Your task to perform on an android device: Open network settings Image 0: 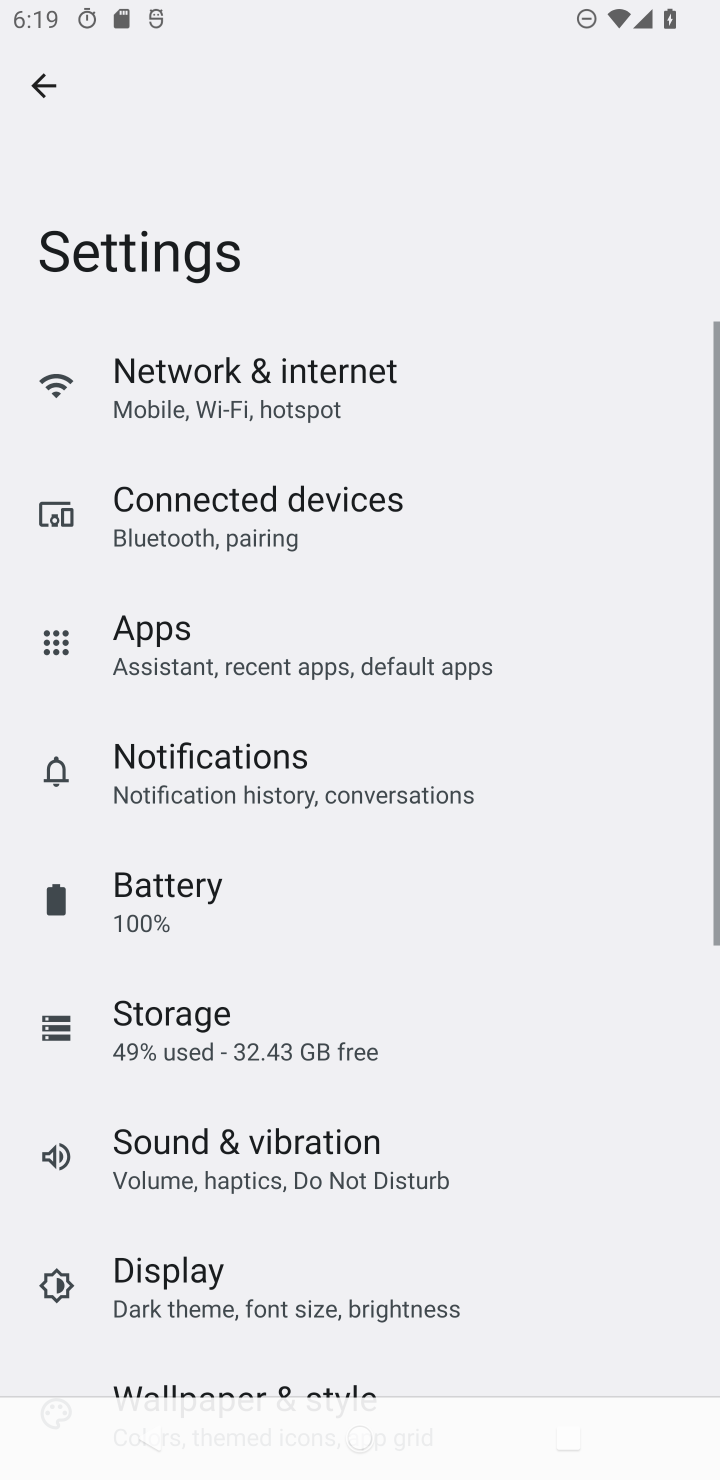
Step 0: click (538, 531)
Your task to perform on an android device: Open network settings Image 1: 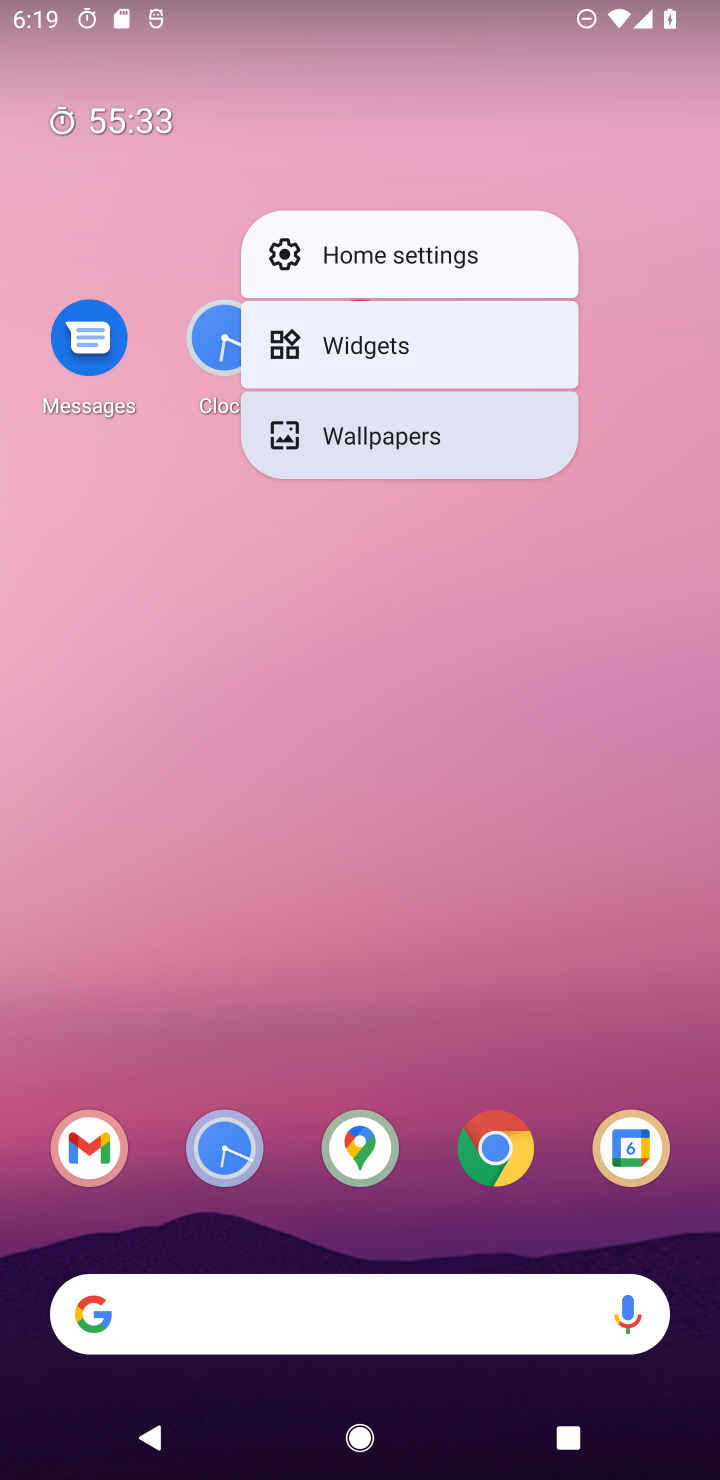
Step 1: drag from (400, 1204) to (438, 492)
Your task to perform on an android device: Open network settings Image 2: 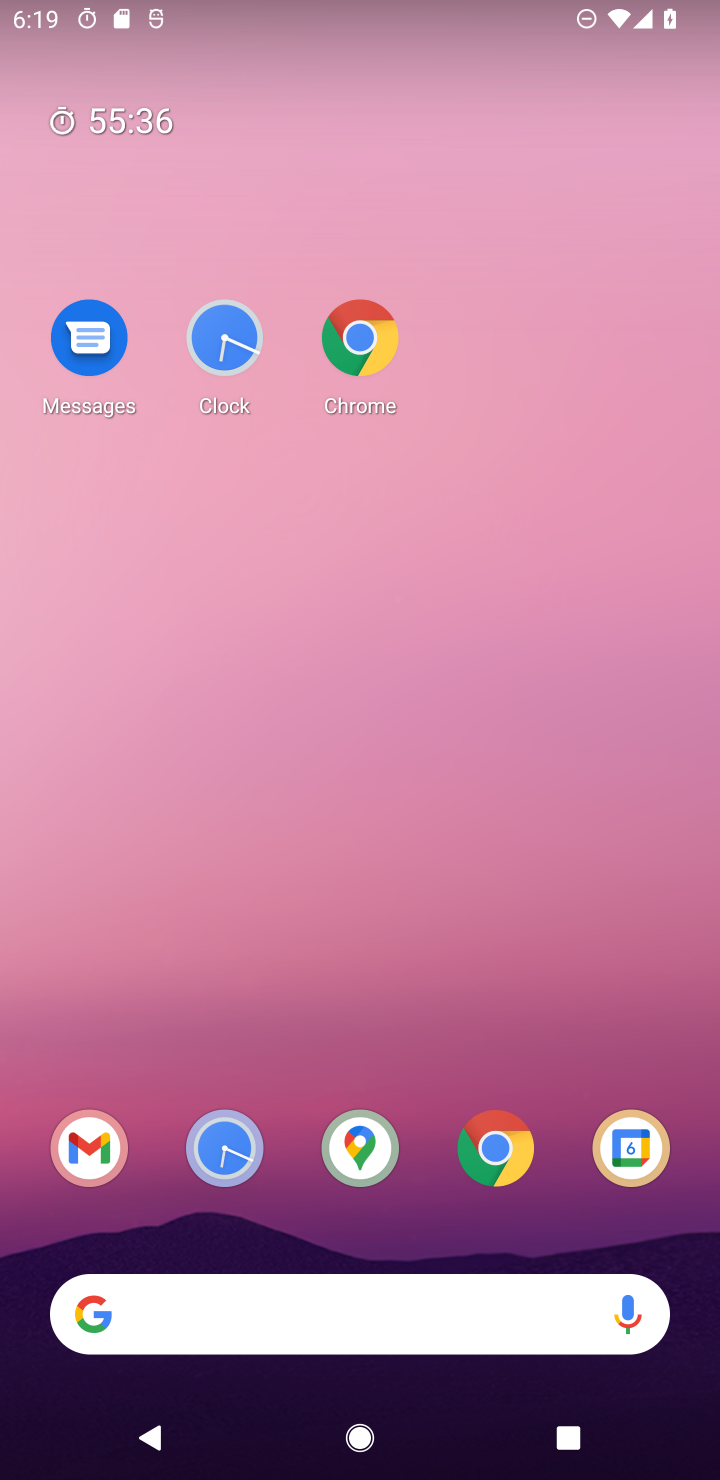
Step 2: drag from (423, 1129) to (451, 415)
Your task to perform on an android device: Open network settings Image 3: 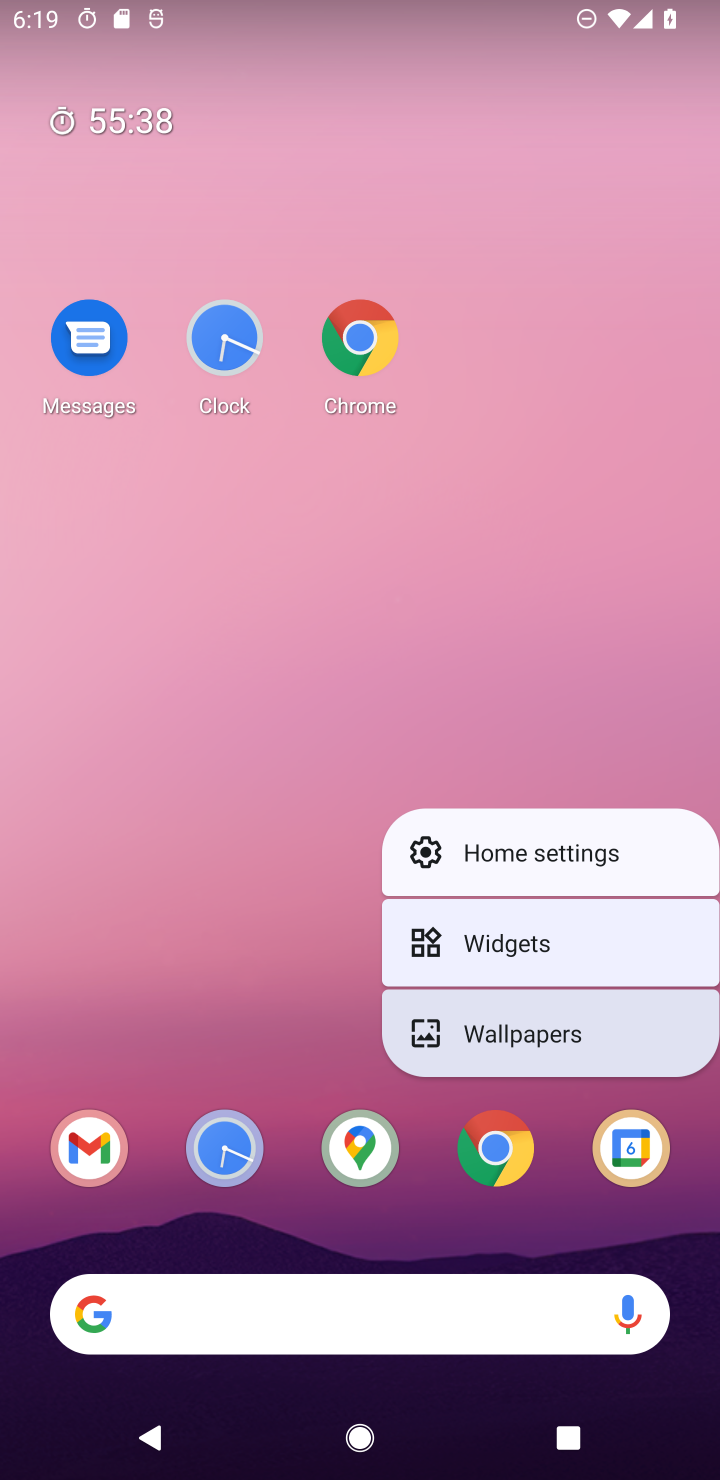
Step 3: drag from (416, 1173) to (424, 574)
Your task to perform on an android device: Open network settings Image 4: 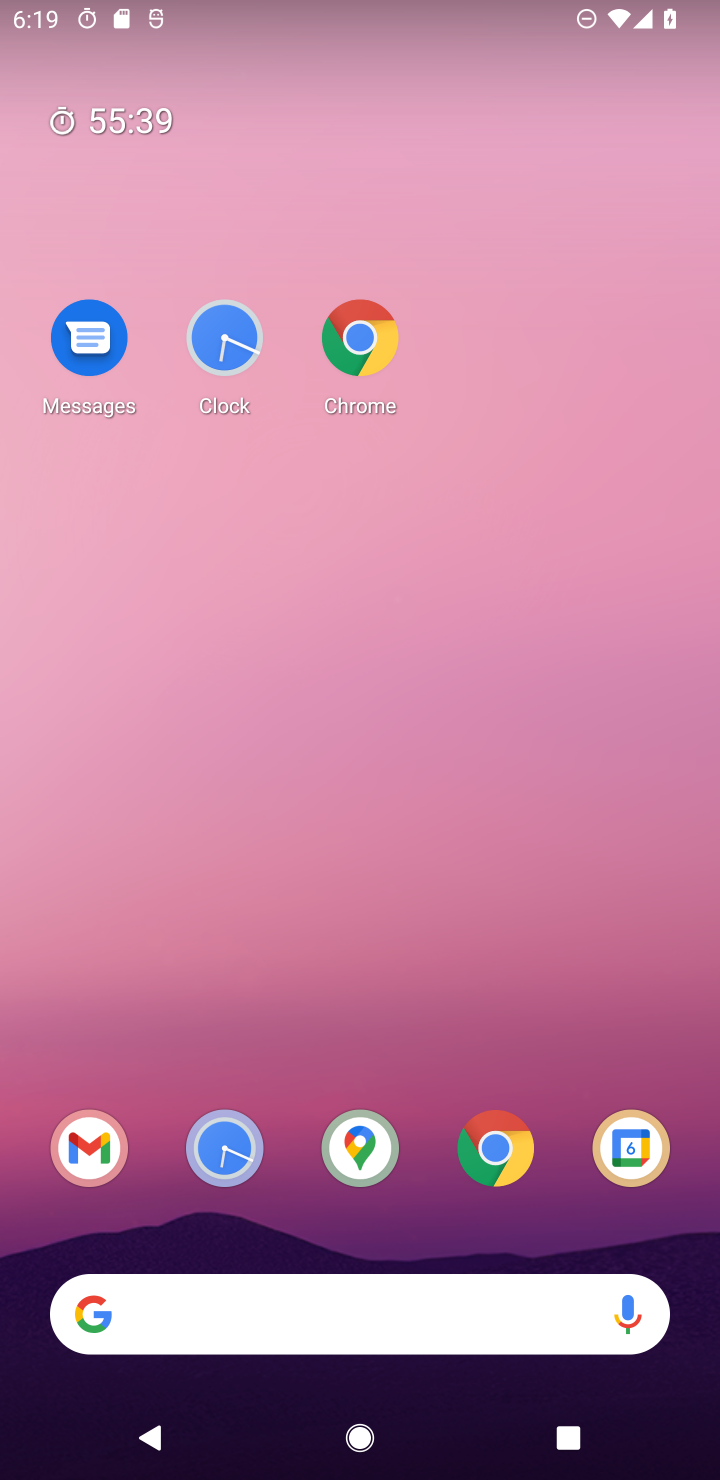
Step 4: drag from (288, 890) to (375, 237)
Your task to perform on an android device: Open network settings Image 5: 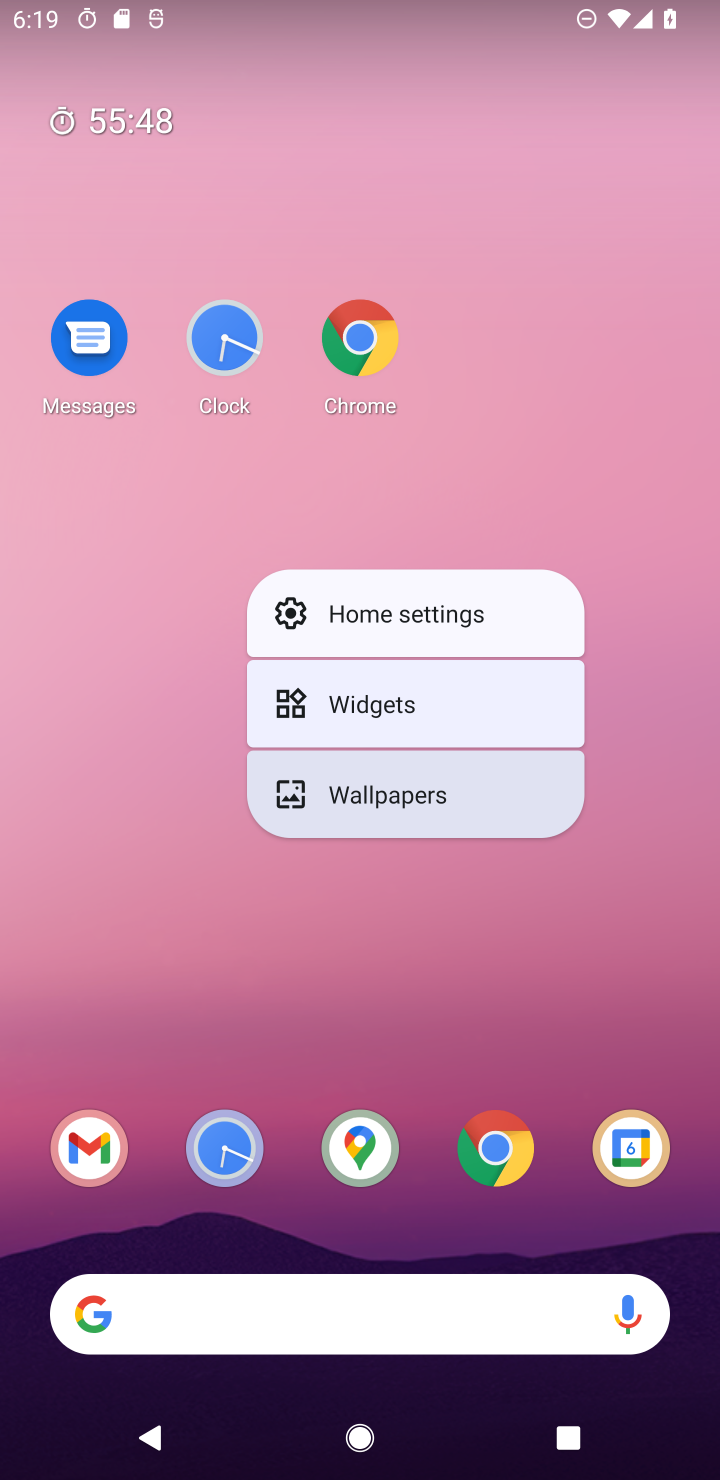
Step 5: drag from (384, 1144) to (374, 419)
Your task to perform on an android device: Open network settings Image 6: 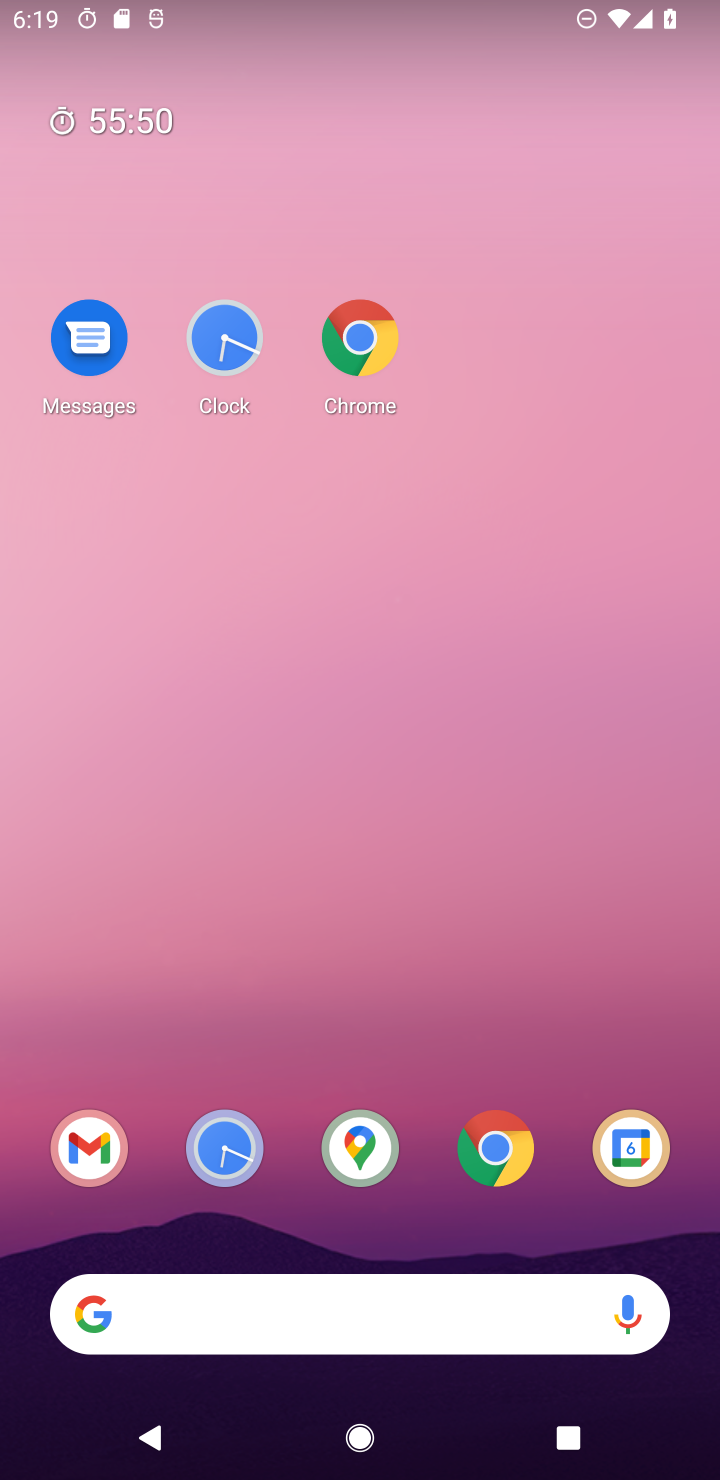
Step 6: drag from (362, 1122) to (451, 405)
Your task to perform on an android device: Open network settings Image 7: 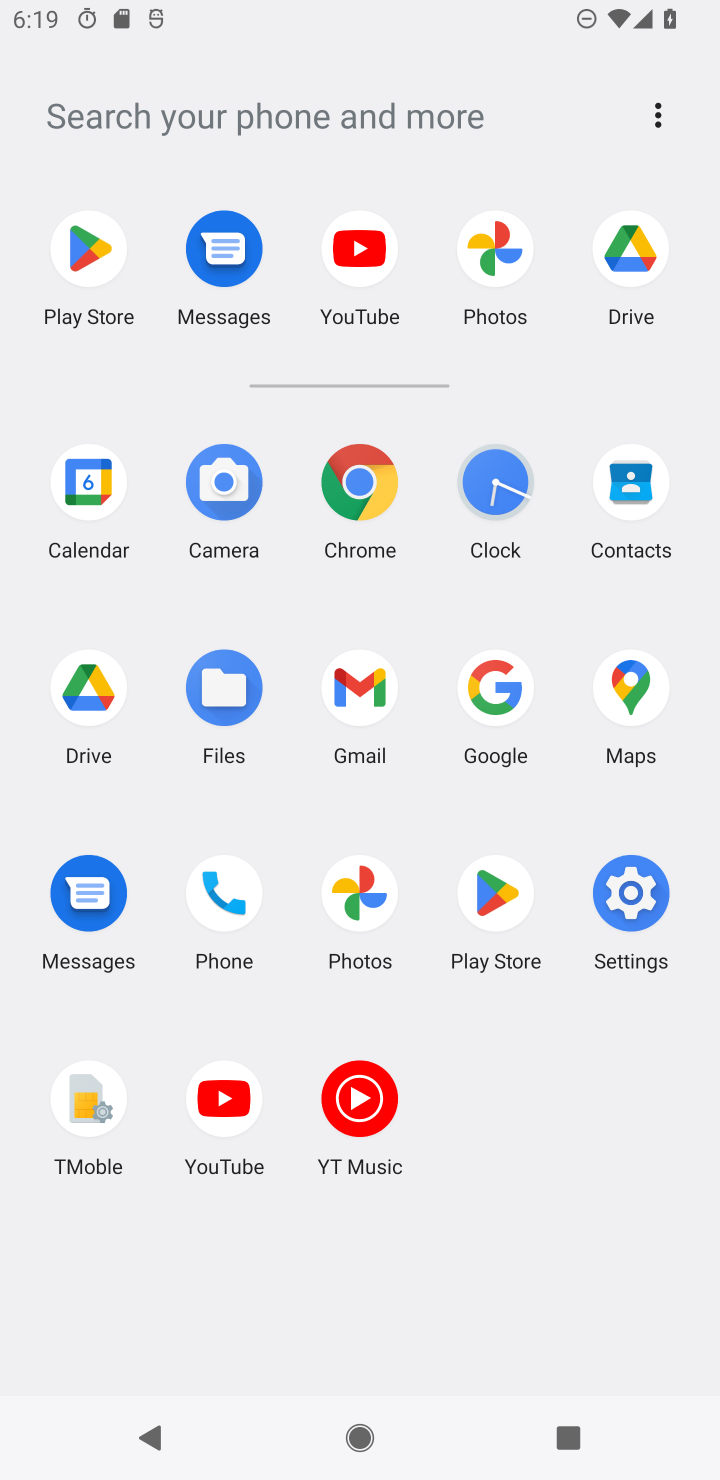
Step 7: click (639, 888)
Your task to perform on an android device: Open network settings Image 8: 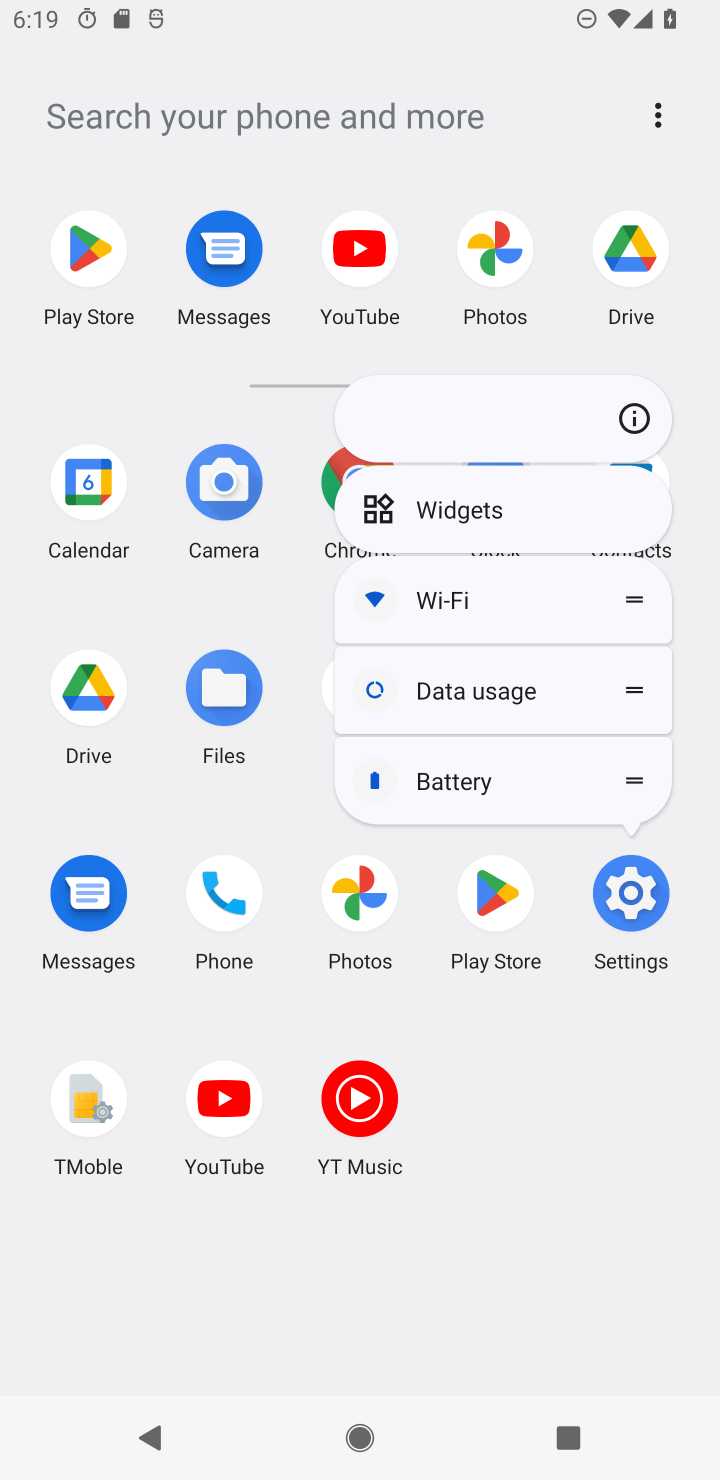
Step 8: click (623, 418)
Your task to perform on an android device: Open network settings Image 9: 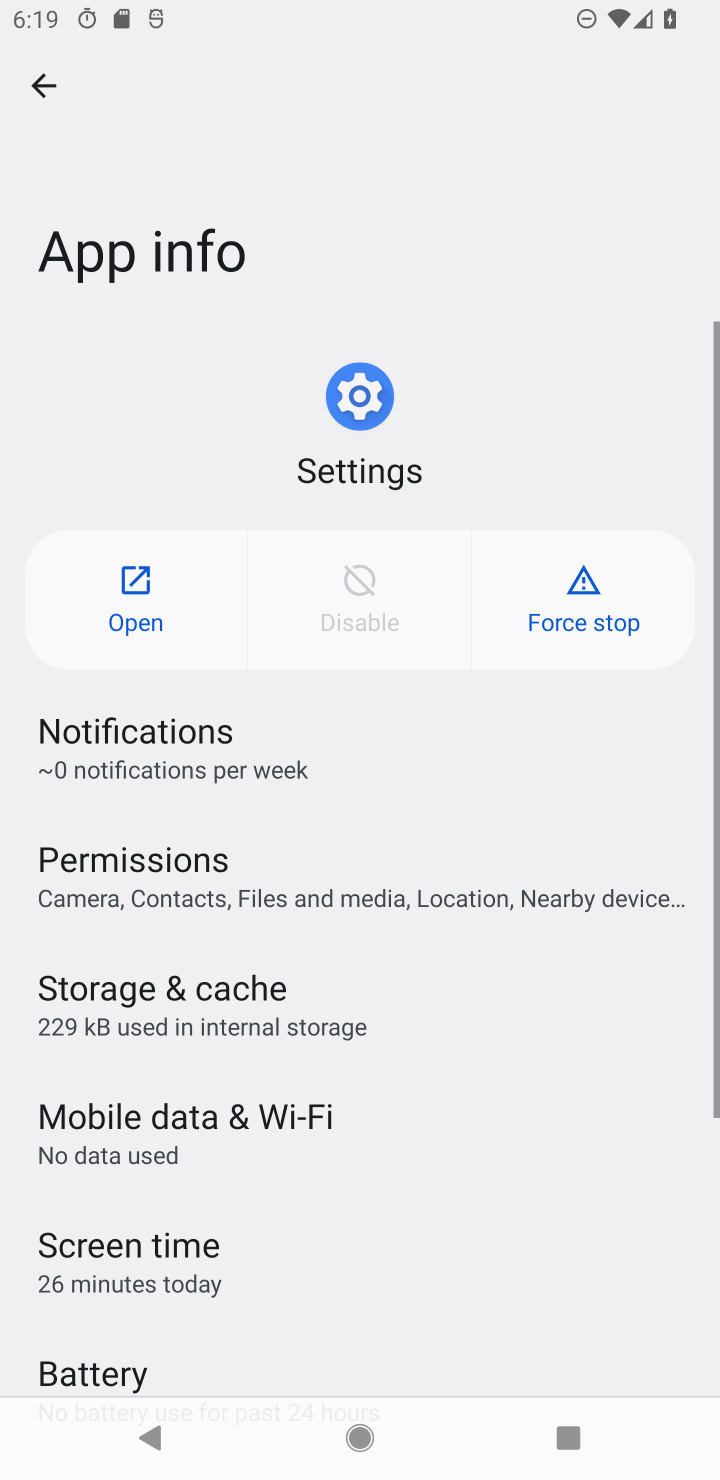
Step 9: click (122, 560)
Your task to perform on an android device: Open network settings Image 10: 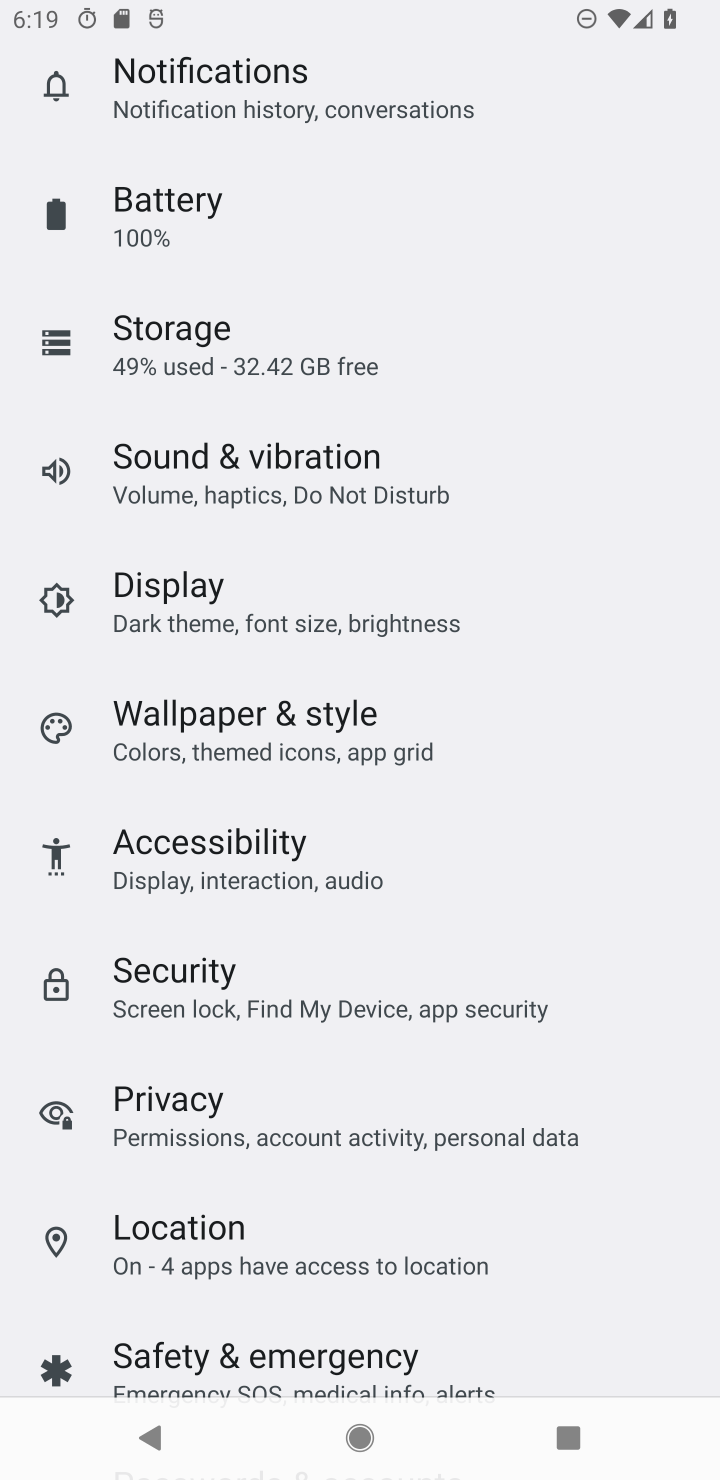
Step 10: drag from (300, 439) to (520, 1274)
Your task to perform on an android device: Open network settings Image 11: 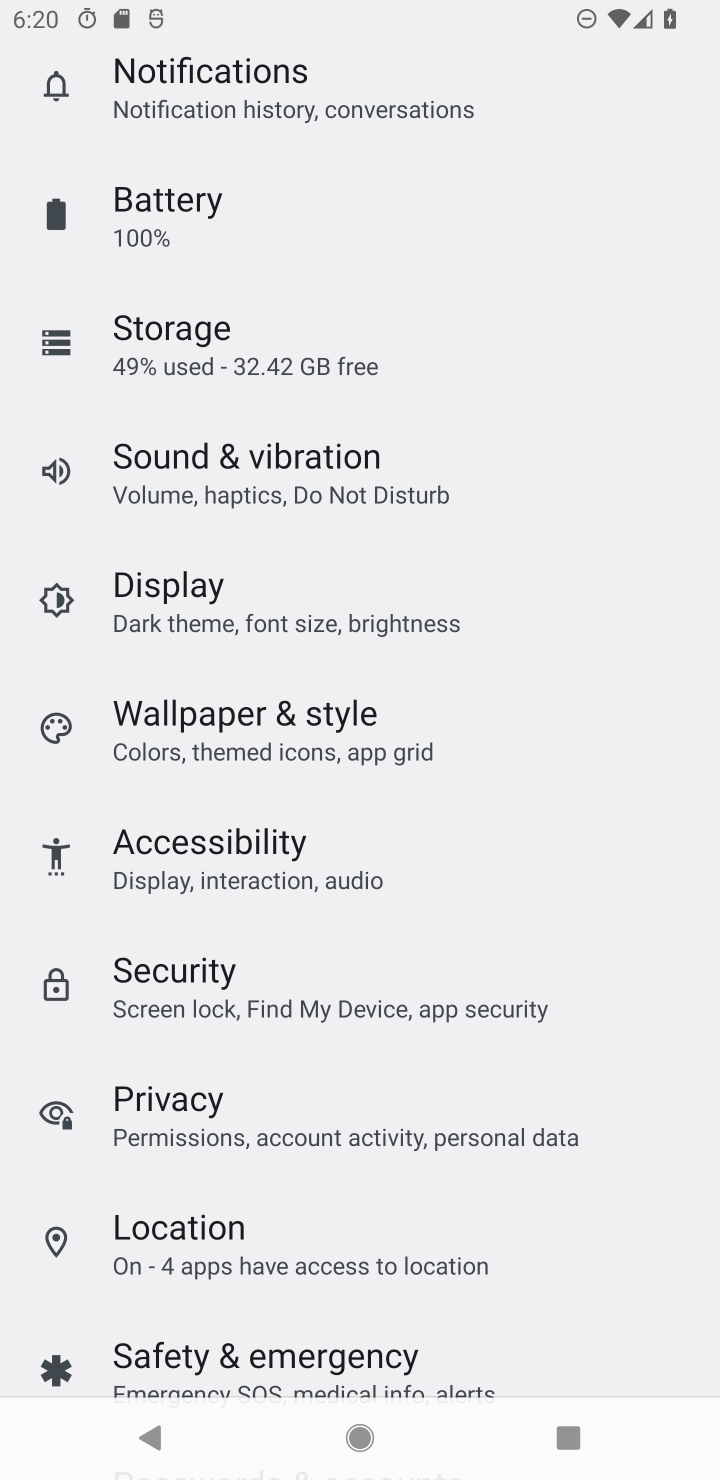
Step 11: drag from (245, 313) to (390, 1221)
Your task to perform on an android device: Open network settings Image 12: 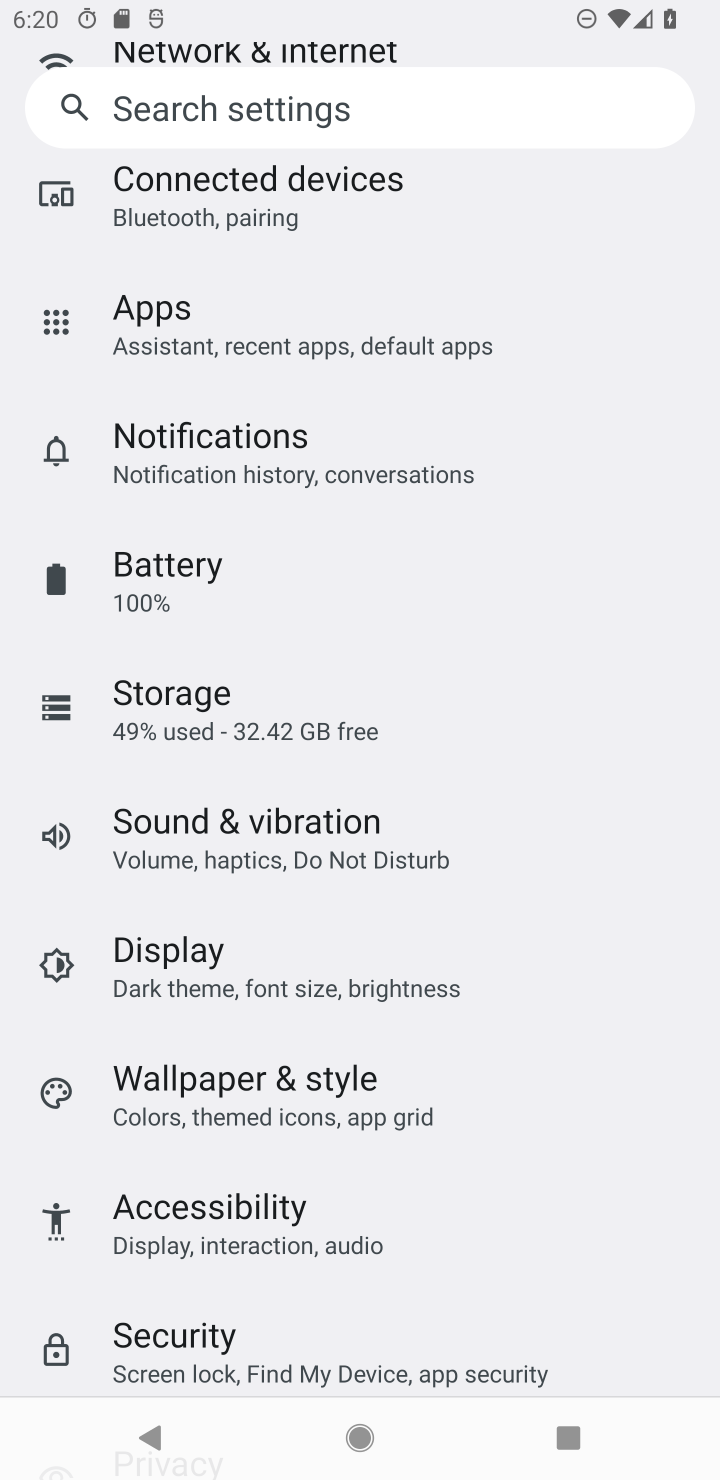
Step 12: drag from (364, 322) to (434, 1369)
Your task to perform on an android device: Open network settings Image 13: 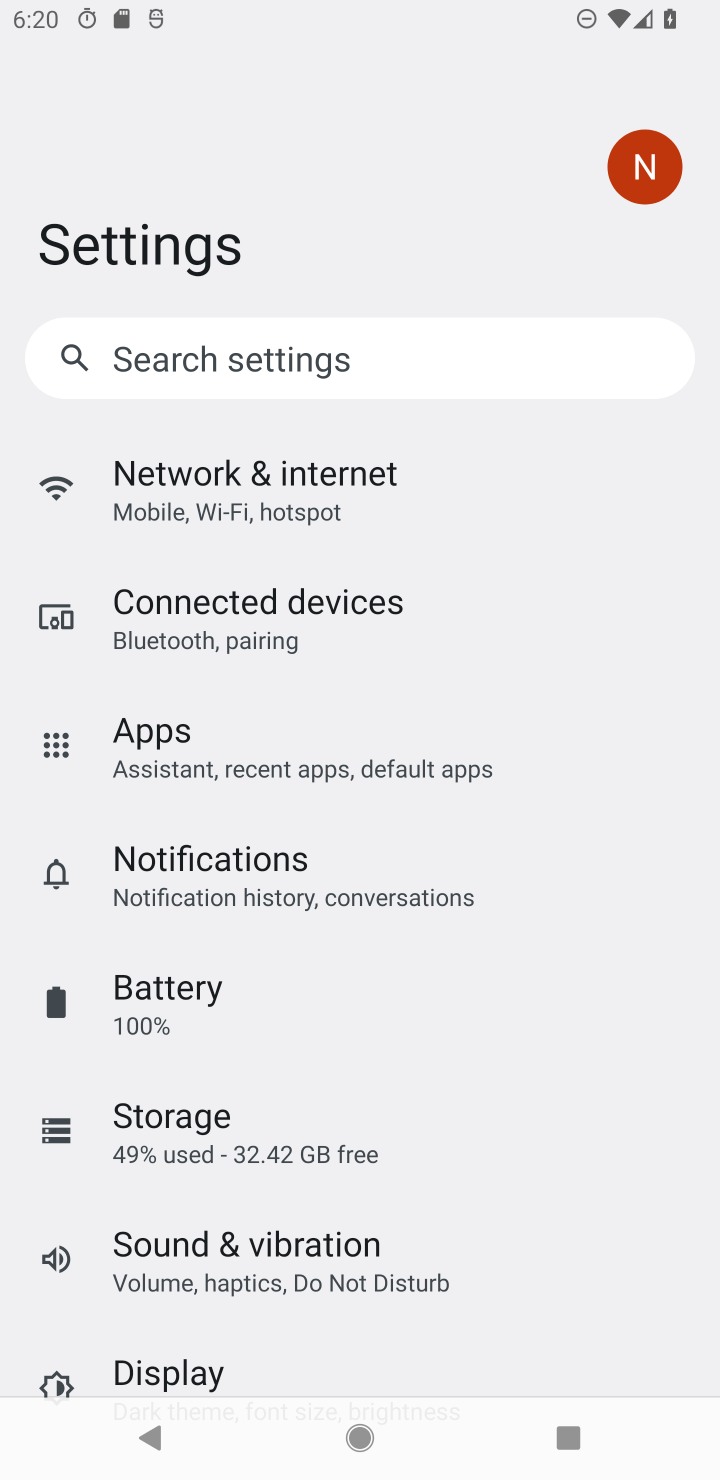
Step 13: click (257, 487)
Your task to perform on an android device: Open network settings Image 14: 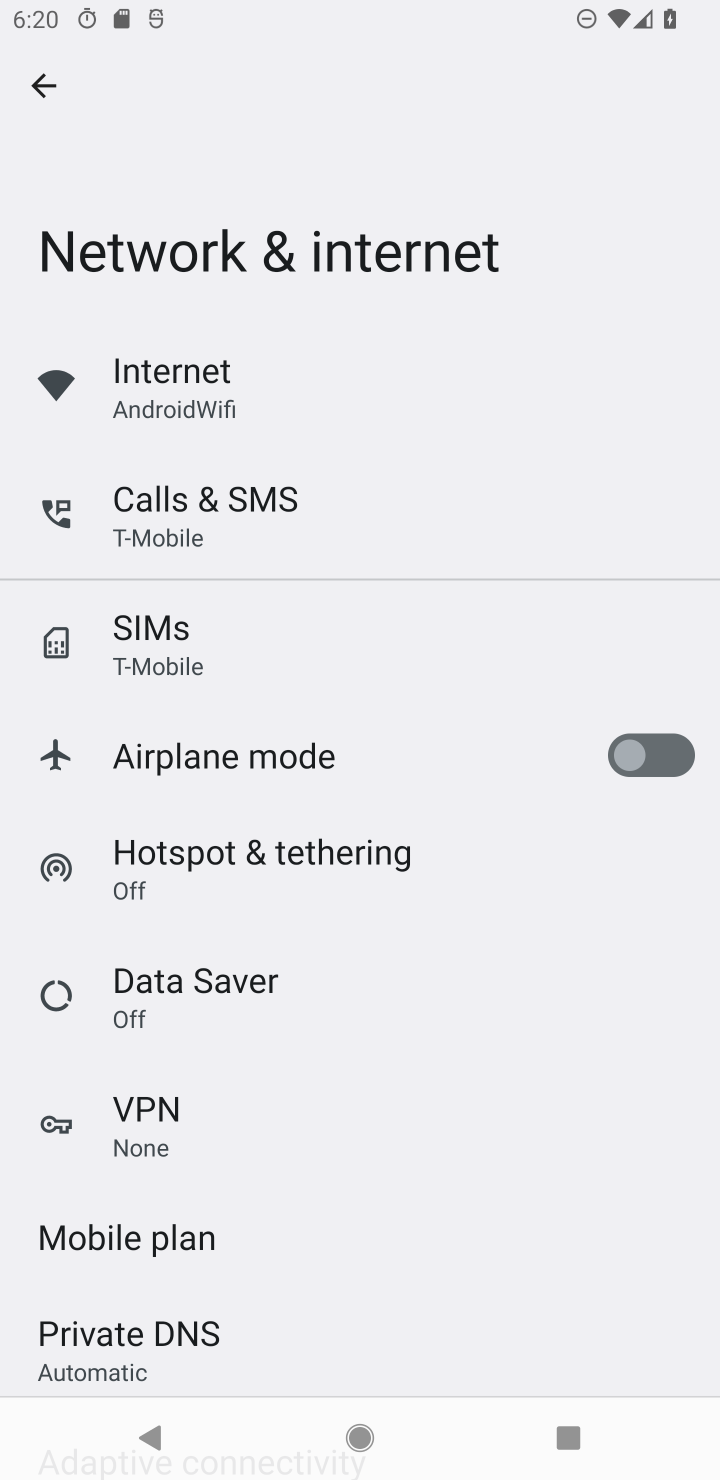
Step 14: task complete